Your task to perform on an android device: toggle javascript in the chrome app Image 0: 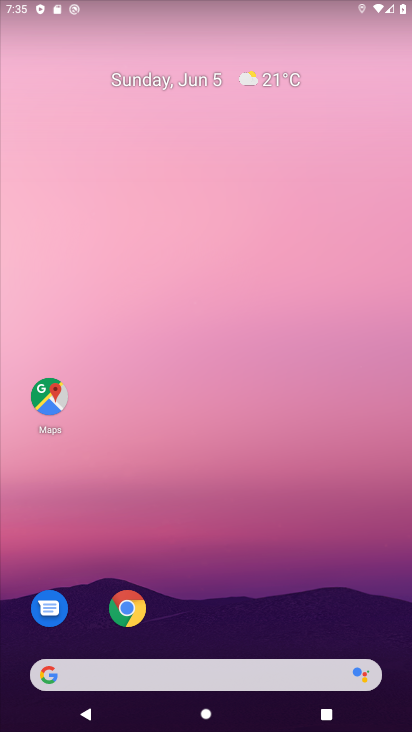
Step 0: drag from (357, 579) to (399, 160)
Your task to perform on an android device: toggle javascript in the chrome app Image 1: 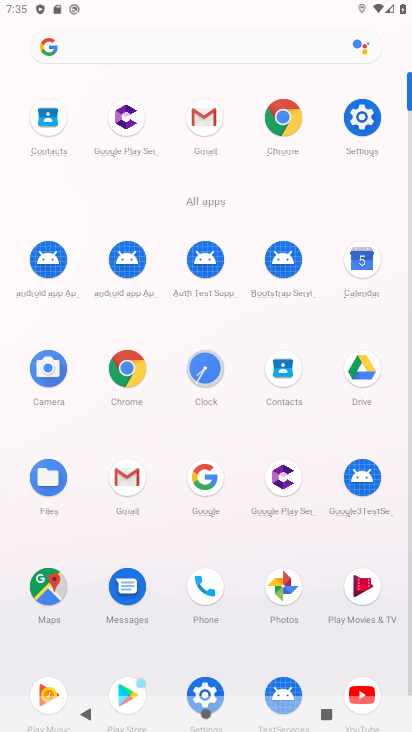
Step 1: click (280, 124)
Your task to perform on an android device: toggle javascript in the chrome app Image 2: 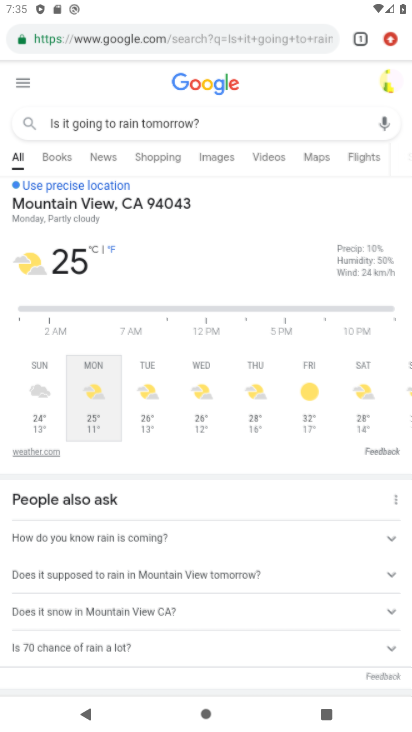
Step 2: drag from (398, 30) to (265, 482)
Your task to perform on an android device: toggle javascript in the chrome app Image 3: 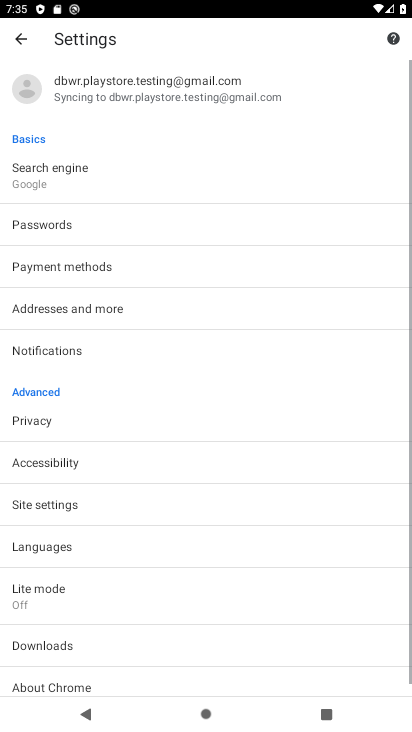
Step 3: drag from (260, 666) to (317, 163)
Your task to perform on an android device: toggle javascript in the chrome app Image 4: 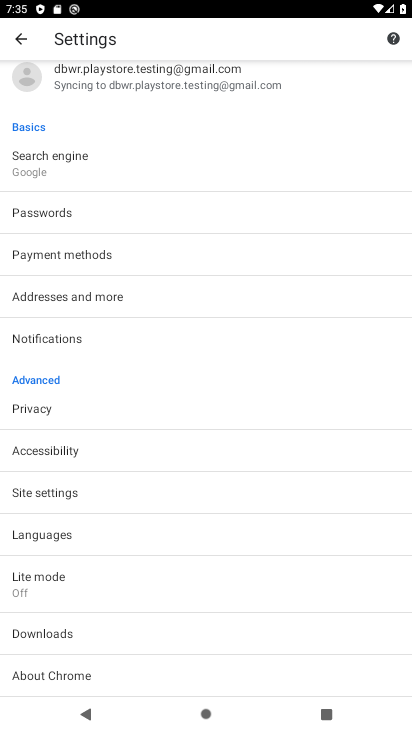
Step 4: click (105, 494)
Your task to perform on an android device: toggle javascript in the chrome app Image 5: 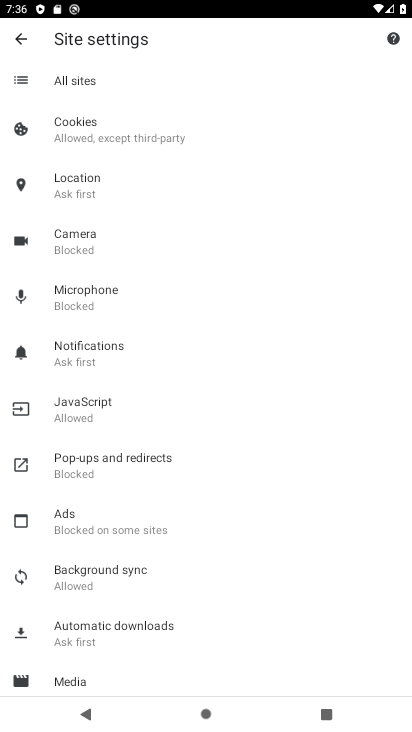
Step 5: click (111, 395)
Your task to perform on an android device: toggle javascript in the chrome app Image 6: 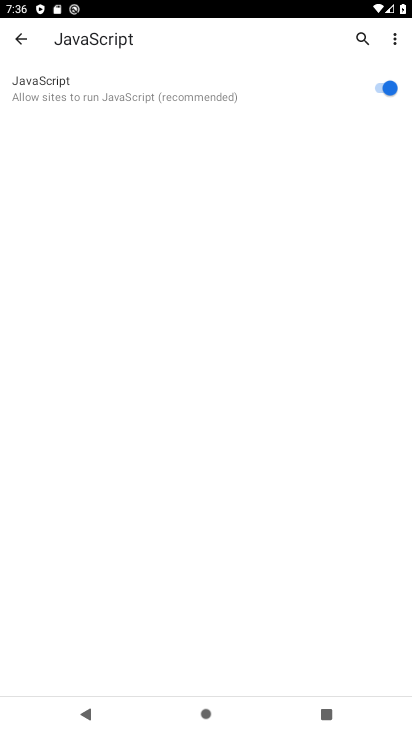
Step 6: click (386, 85)
Your task to perform on an android device: toggle javascript in the chrome app Image 7: 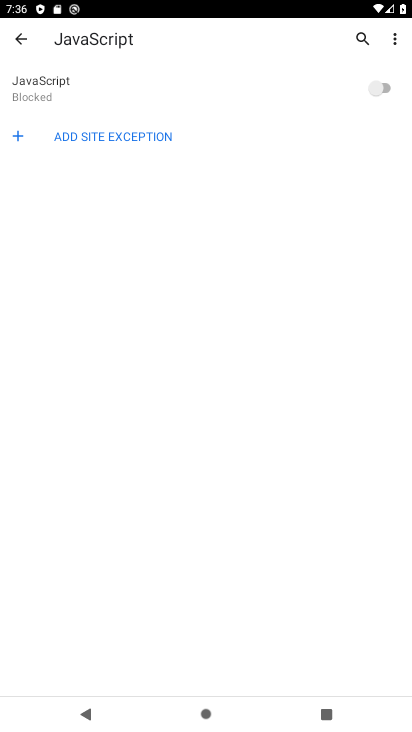
Step 7: task complete